Your task to perform on an android device: Open notification settings Image 0: 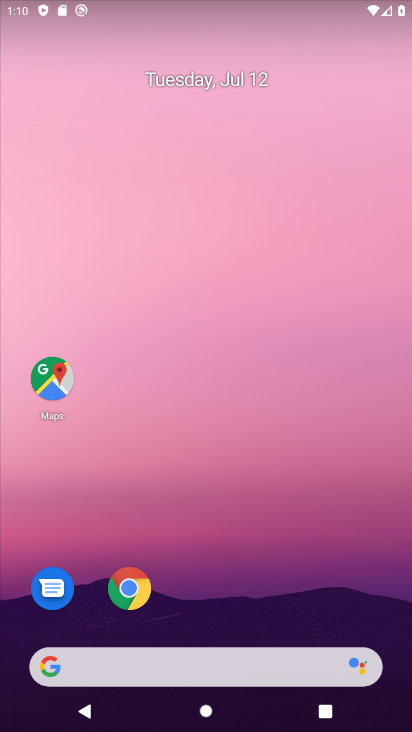
Step 0: drag from (212, 572) to (201, 138)
Your task to perform on an android device: Open notification settings Image 1: 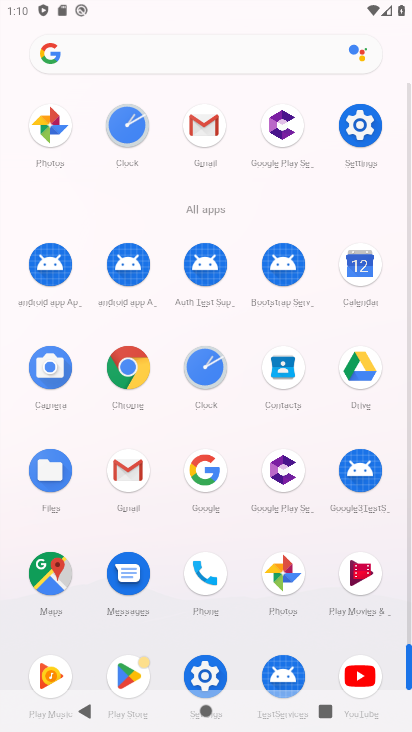
Step 1: click (368, 120)
Your task to perform on an android device: Open notification settings Image 2: 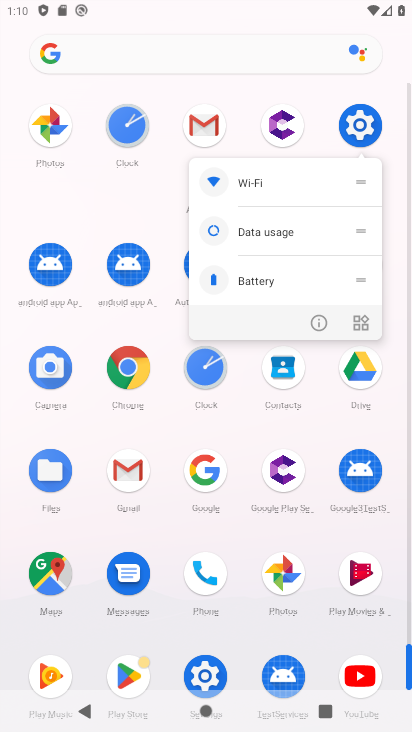
Step 2: click (313, 325)
Your task to perform on an android device: Open notification settings Image 3: 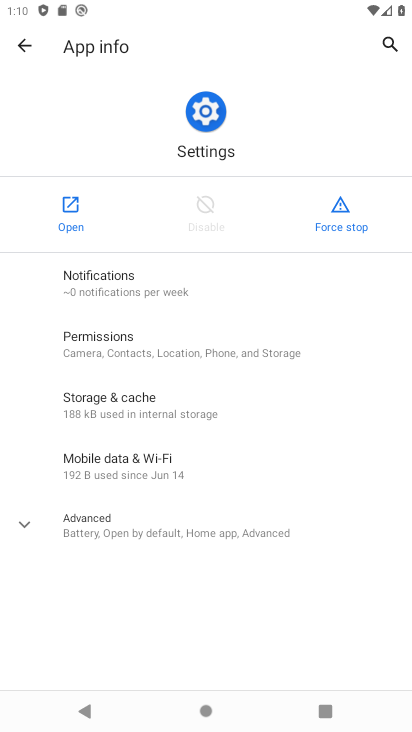
Step 3: click (132, 268)
Your task to perform on an android device: Open notification settings Image 4: 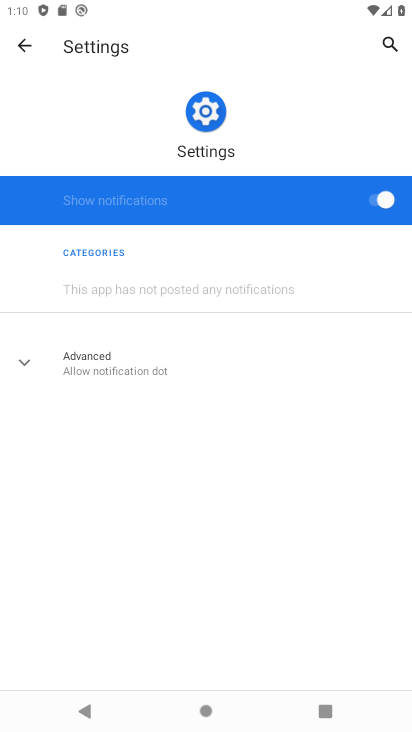
Step 4: task complete